Your task to perform on an android device: Go to calendar. Show me events next week Image 0: 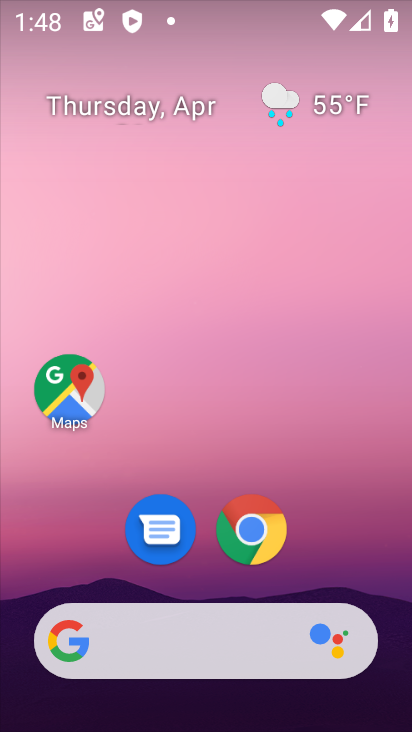
Step 0: drag from (199, 399) to (166, 112)
Your task to perform on an android device: Go to calendar. Show me events next week Image 1: 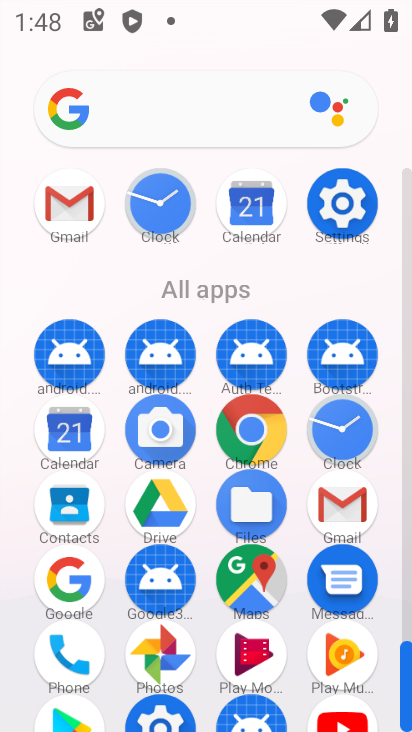
Step 1: click (61, 424)
Your task to perform on an android device: Go to calendar. Show me events next week Image 2: 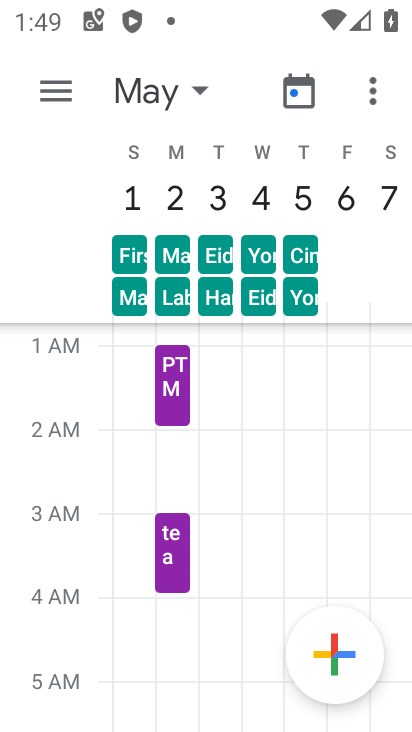
Step 2: click (188, 97)
Your task to perform on an android device: Go to calendar. Show me events next week Image 3: 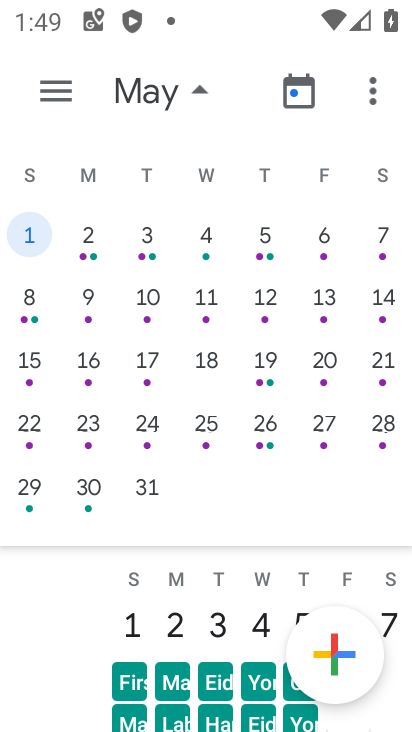
Step 3: drag from (99, 286) to (343, 294)
Your task to perform on an android device: Go to calendar. Show me events next week Image 4: 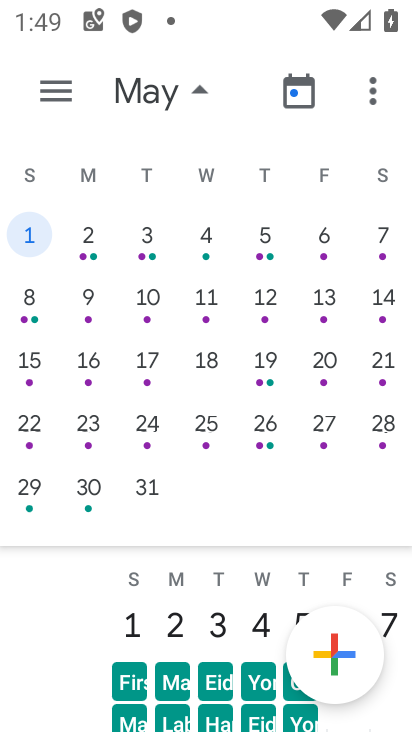
Step 4: drag from (66, 361) to (398, 403)
Your task to perform on an android device: Go to calendar. Show me events next week Image 5: 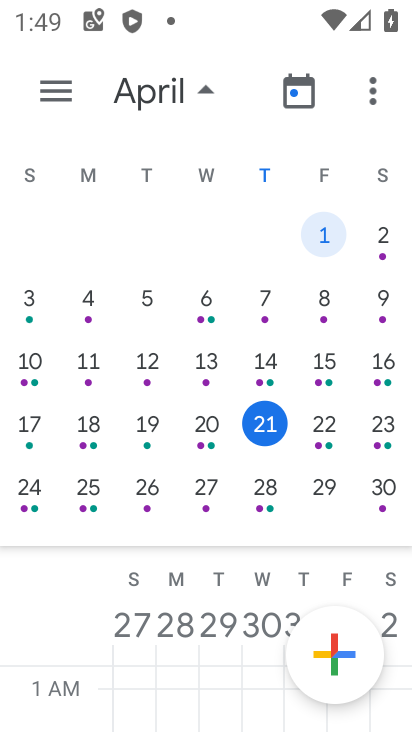
Step 5: click (41, 488)
Your task to perform on an android device: Go to calendar. Show me events next week Image 6: 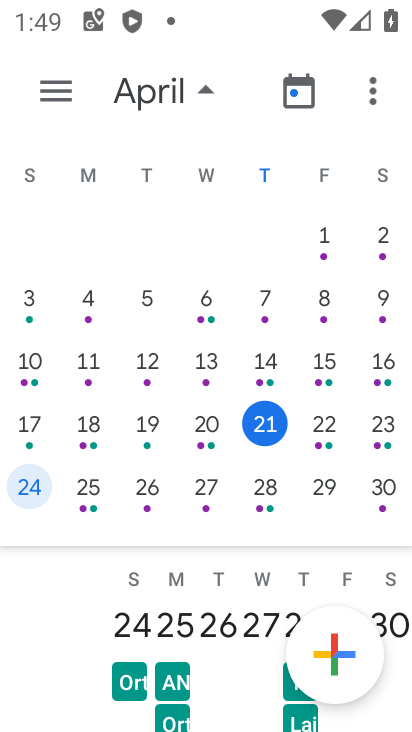
Step 6: click (196, 86)
Your task to perform on an android device: Go to calendar. Show me events next week Image 7: 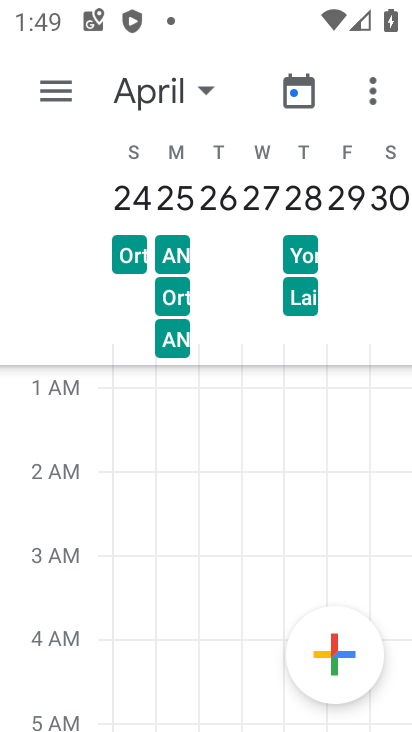
Step 7: task complete